Your task to perform on an android device: Go to accessibility settings Image 0: 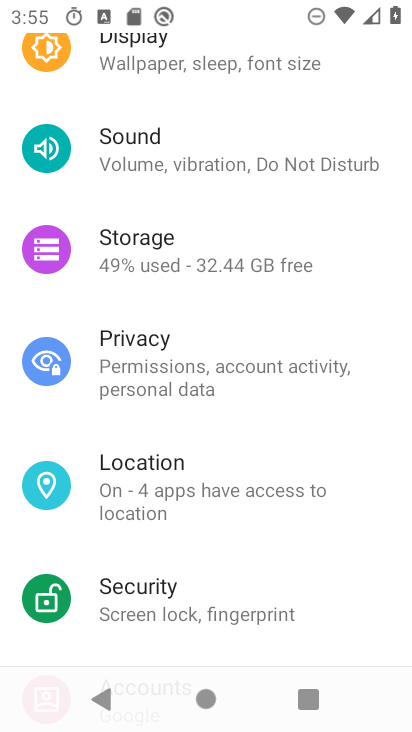
Step 0: drag from (187, 540) to (310, 156)
Your task to perform on an android device: Go to accessibility settings Image 1: 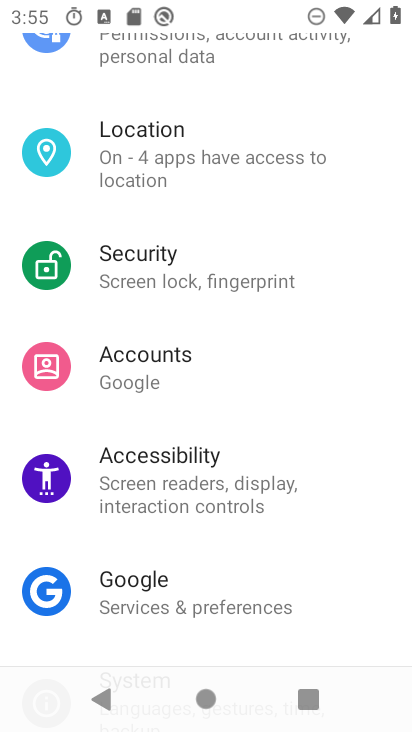
Step 1: click (218, 467)
Your task to perform on an android device: Go to accessibility settings Image 2: 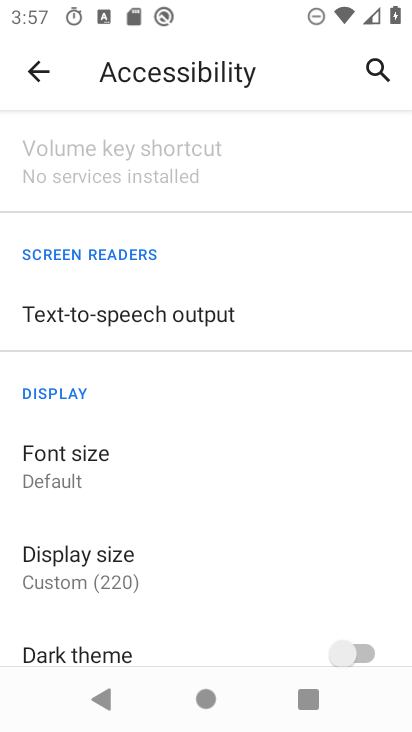
Step 2: task complete